Your task to perform on an android device: turn on showing notifications on the lock screen Image 0: 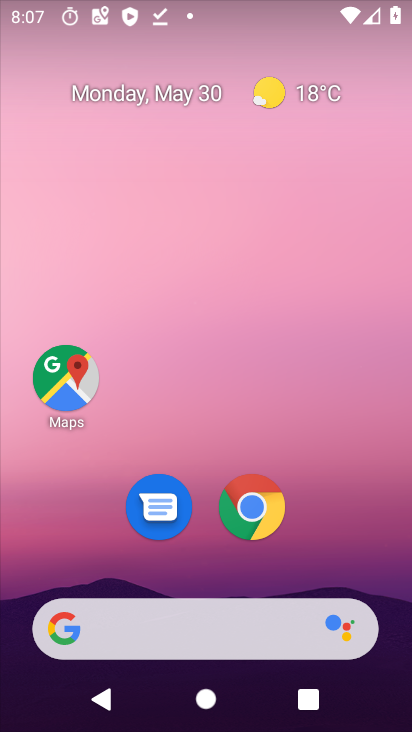
Step 0: drag from (328, 406) to (303, 201)
Your task to perform on an android device: turn on showing notifications on the lock screen Image 1: 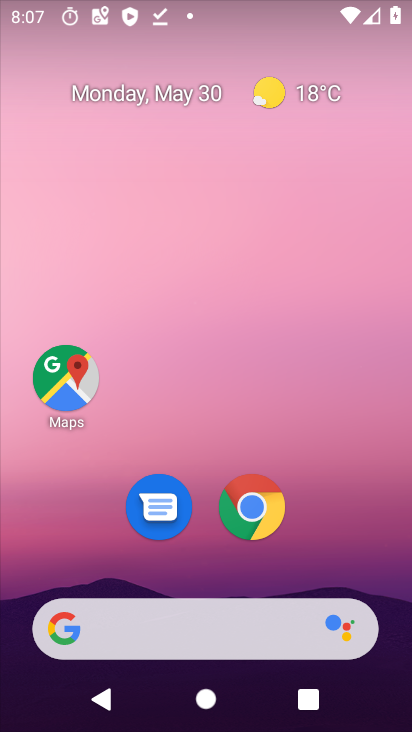
Step 1: drag from (377, 453) to (290, 85)
Your task to perform on an android device: turn on showing notifications on the lock screen Image 2: 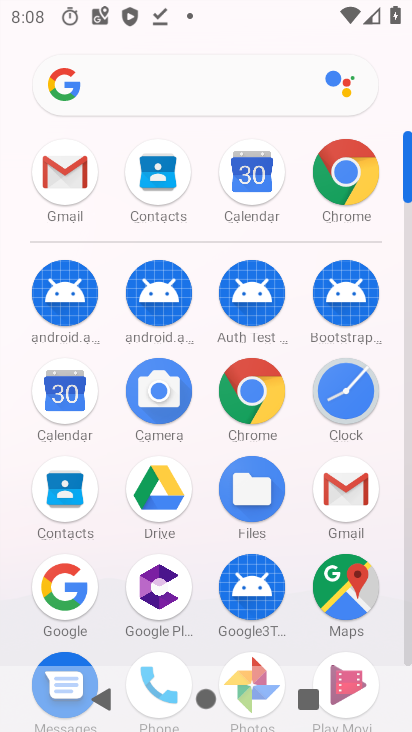
Step 2: drag from (158, 530) to (199, 182)
Your task to perform on an android device: turn on showing notifications on the lock screen Image 3: 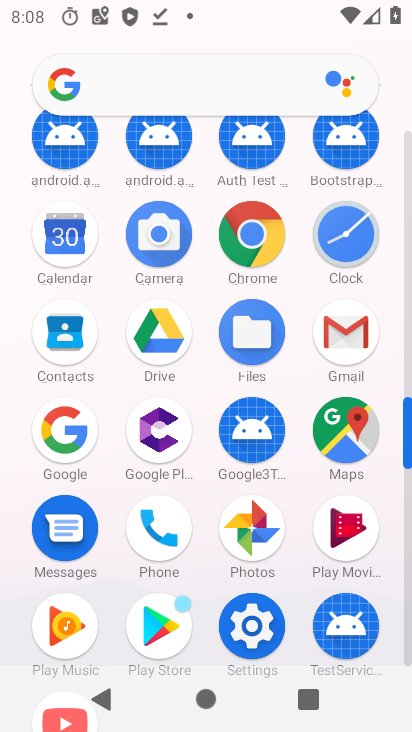
Step 3: click (259, 639)
Your task to perform on an android device: turn on showing notifications on the lock screen Image 4: 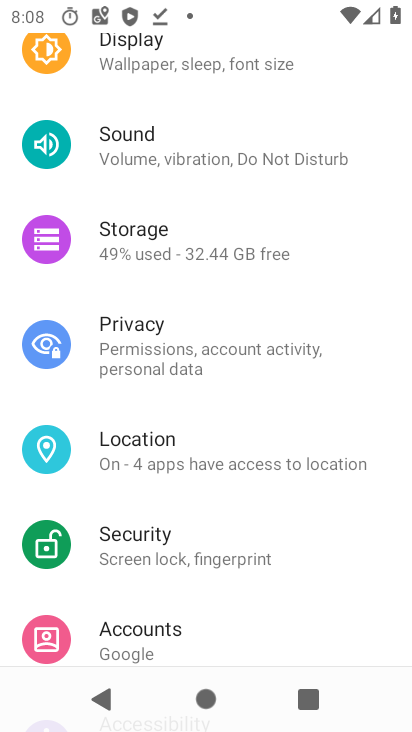
Step 4: drag from (225, 207) to (268, 527)
Your task to perform on an android device: turn on showing notifications on the lock screen Image 5: 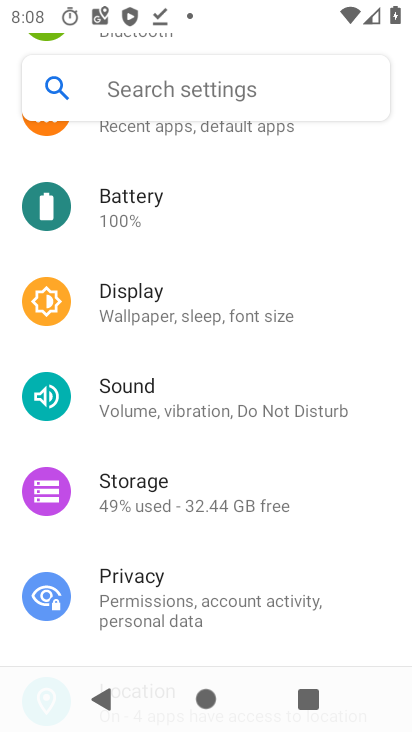
Step 5: drag from (237, 586) to (262, 297)
Your task to perform on an android device: turn on showing notifications on the lock screen Image 6: 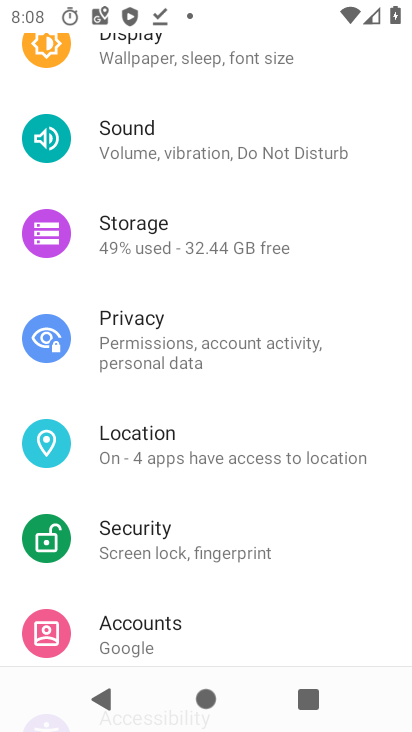
Step 6: drag from (250, 570) to (268, 308)
Your task to perform on an android device: turn on showing notifications on the lock screen Image 7: 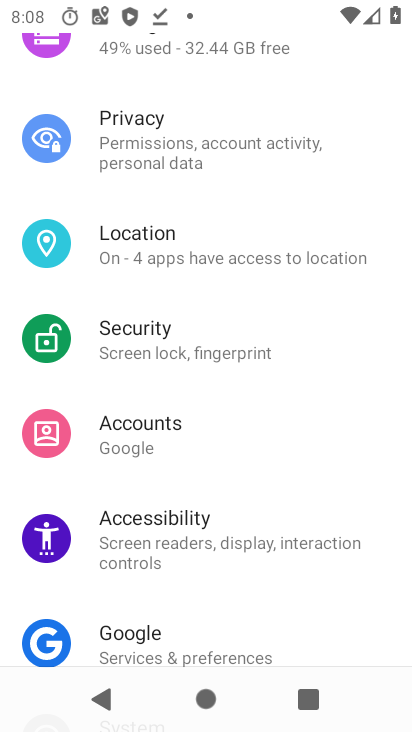
Step 7: drag from (273, 124) to (300, 491)
Your task to perform on an android device: turn on showing notifications on the lock screen Image 8: 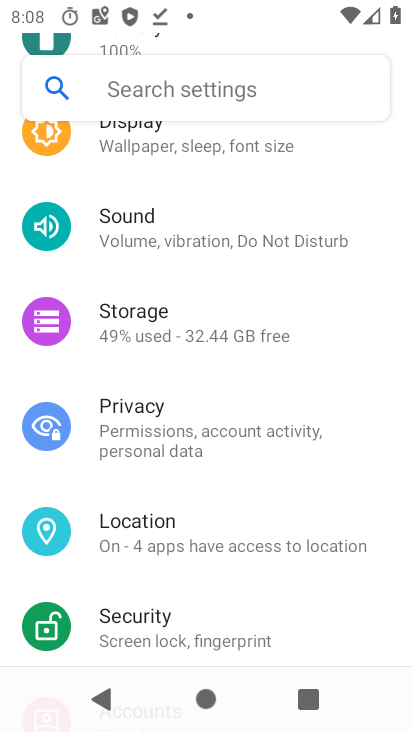
Step 8: drag from (237, 200) to (321, 550)
Your task to perform on an android device: turn on showing notifications on the lock screen Image 9: 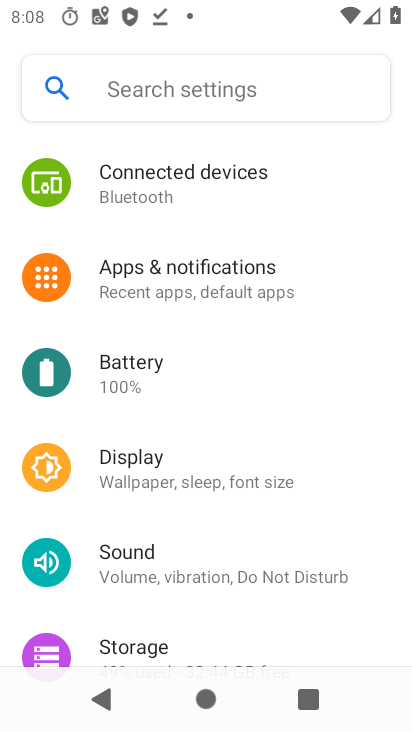
Step 9: drag from (250, 183) to (299, 453)
Your task to perform on an android device: turn on showing notifications on the lock screen Image 10: 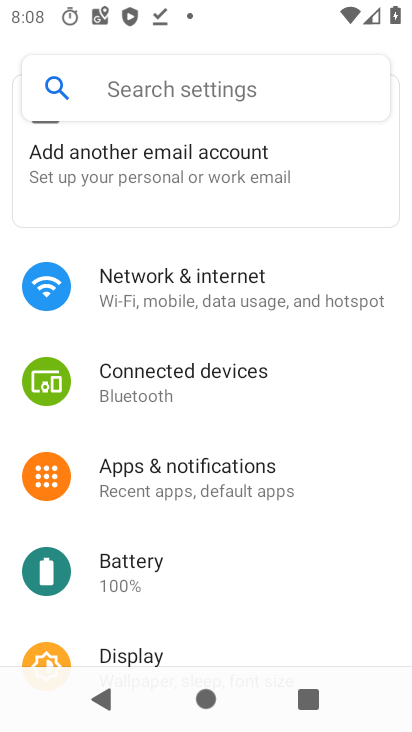
Step 10: click (251, 474)
Your task to perform on an android device: turn on showing notifications on the lock screen Image 11: 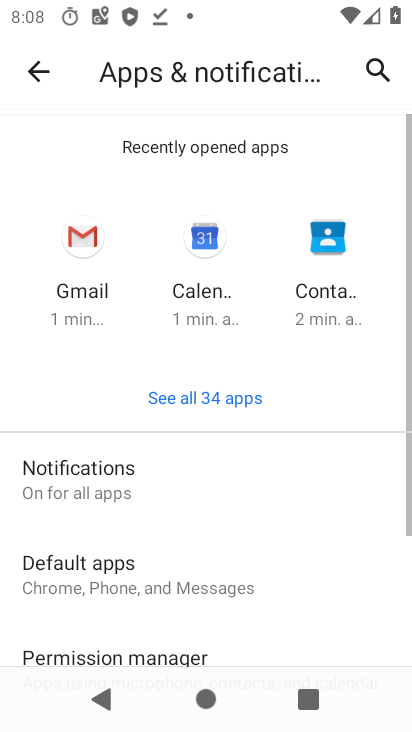
Step 11: click (143, 494)
Your task to perform on an android device: turn on showing notifications on the lock screen Image 12: 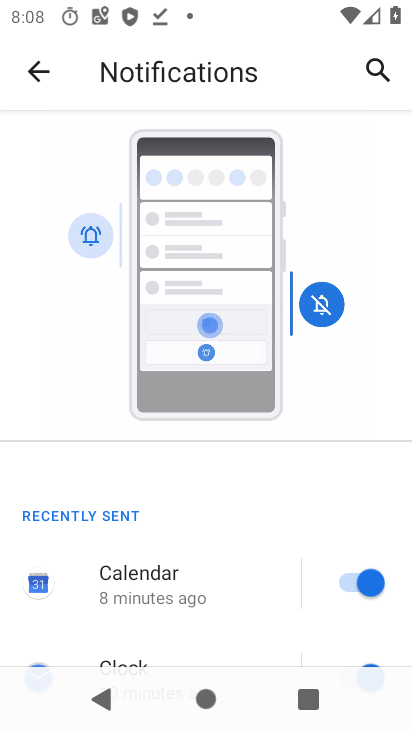
Step 12: drag from (273, 654) to (254, 274)
Your task to perform on an android device: turn on showing notifications on the lock screen Image 13: 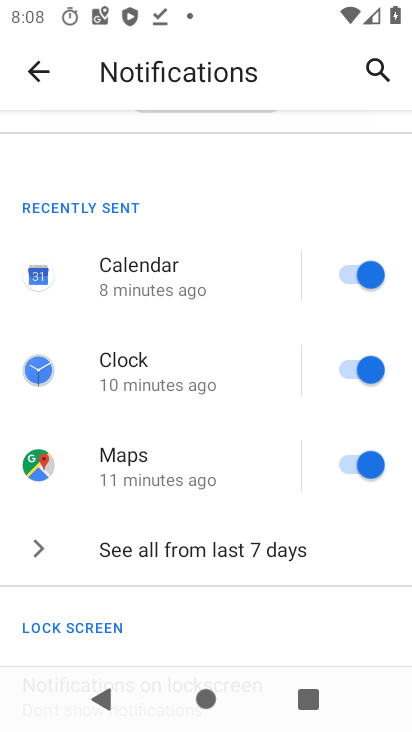
Step 13: drag from (242, 557) to (211, 286)
Your task to perform on an android device: turn on showing notifications on the lock screen Image 14: 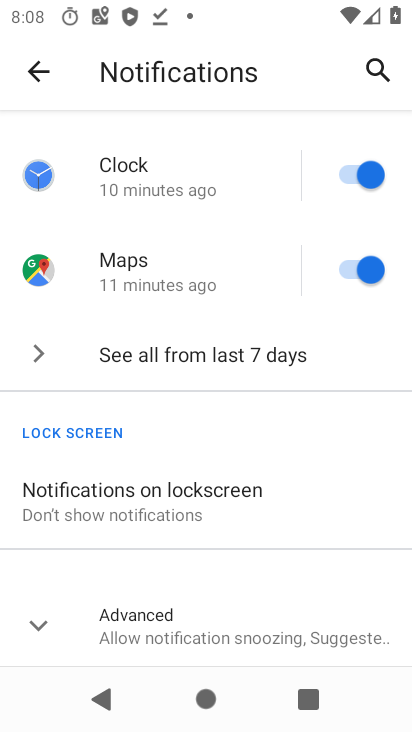
Step 14: click (210, 507)
Your task to perform on an android device: turn on showing notifications on the lock screen Image 15: 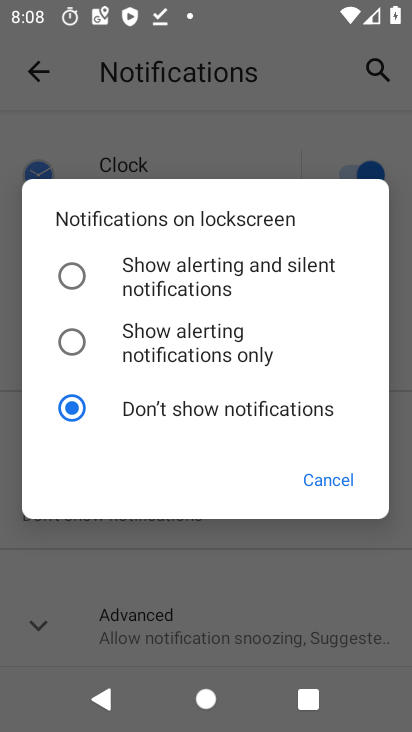
Step 15: click (70, 272)
Your task to perform on an android device: turn on showing notifications on the lock screen Image 16: 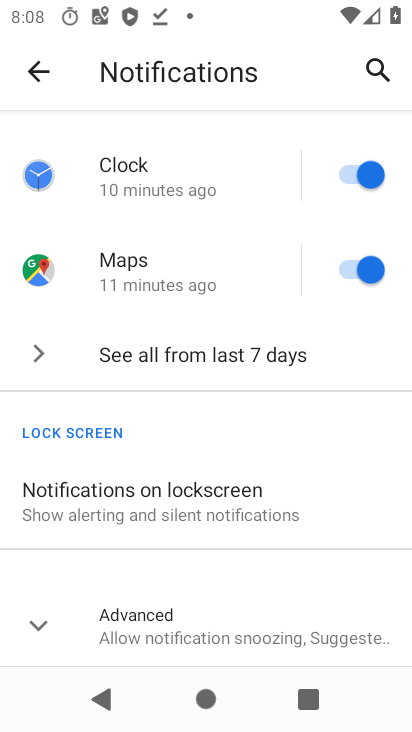
Step 16: task complete